Your task to perform on an android device: turn on airplane mode Image 0: 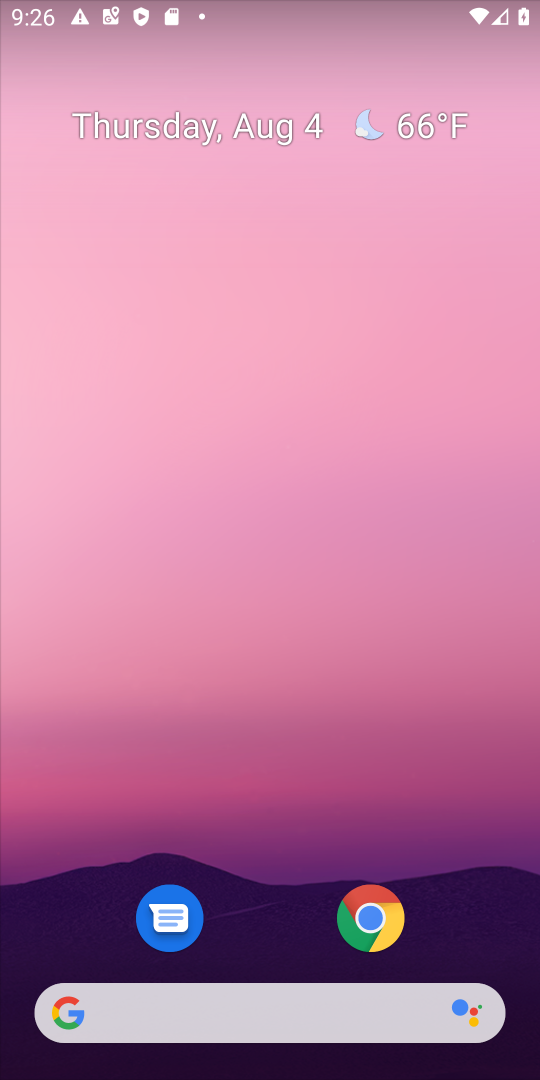
Step 0: press home button
Your task to perform on an android device: turn on airplane mode Image 1: 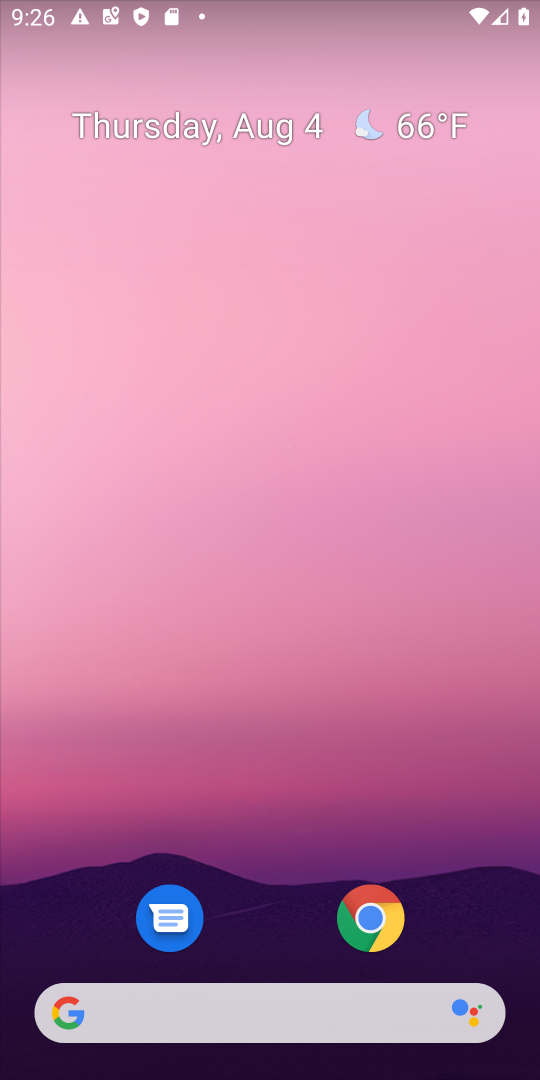
Step 1: drag from (294, 8) to (334, 661)
Your task to perform on an android device: turn on airplane mode Image 2: 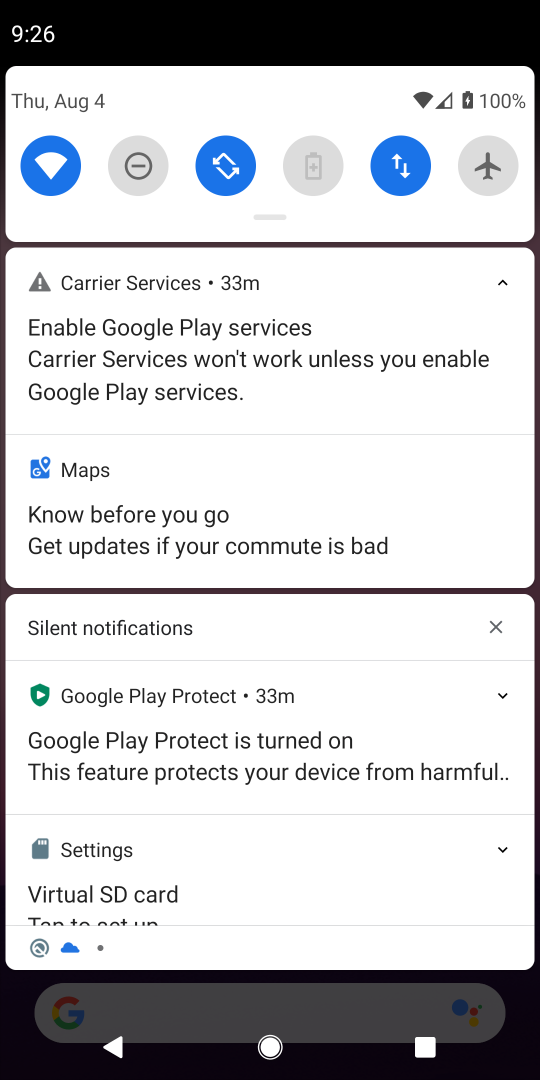
Step 2: click (491, 169)
Your task to perform on an android device: turn on airplane mode Image 3: 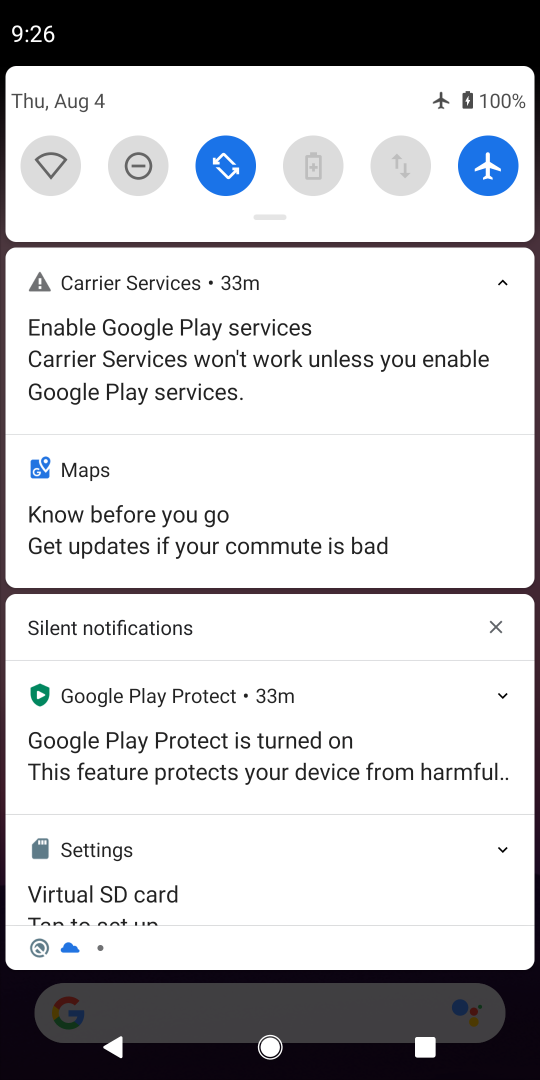
Step 3: task complete